Your task to perform on an android device: turn on wifi Image 0: 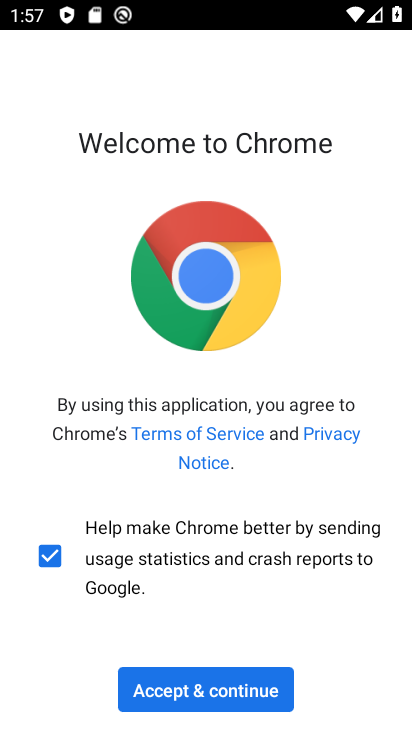
Step 0: press home button
Your task to perform on an android device: turn on wifi Image 1: 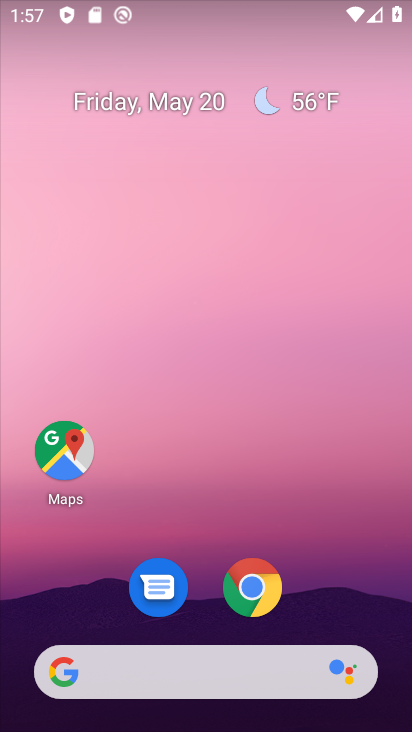
Step 1: task complete